Your task to perform on an android device: Go to calendar. Show me events next week Image 0: 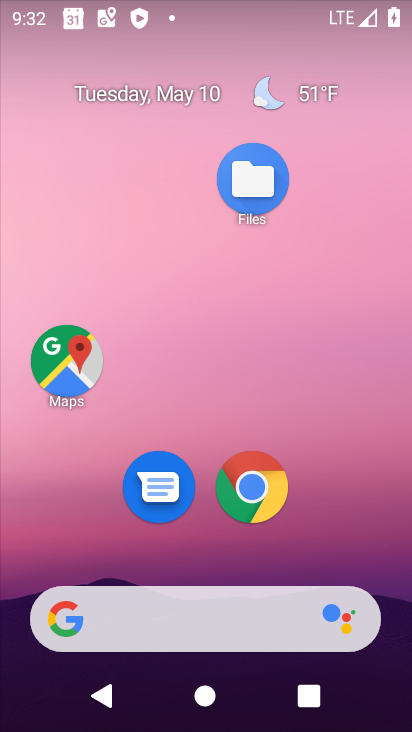
Step 0: drag from (186, 524) to (232, 24)
Your task to perform on an android device: Go to calendar. Show me events next week Image 1: 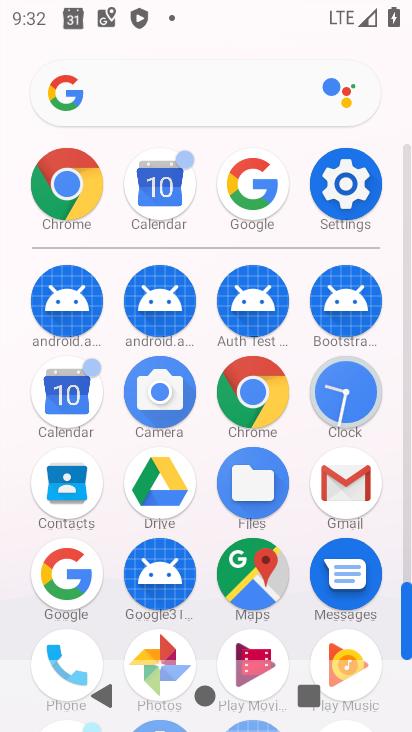
Step 1: click (64, 383)
Your task to perform on an android device: Go to calendar. Show me events next week Image 2: 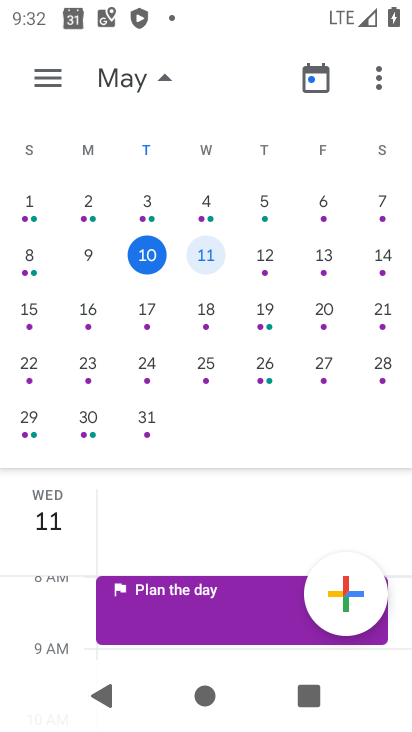
Step 2: click (321, 261)
Your task to perform on an android device: Go to calendar. Show me events next week Image 3: 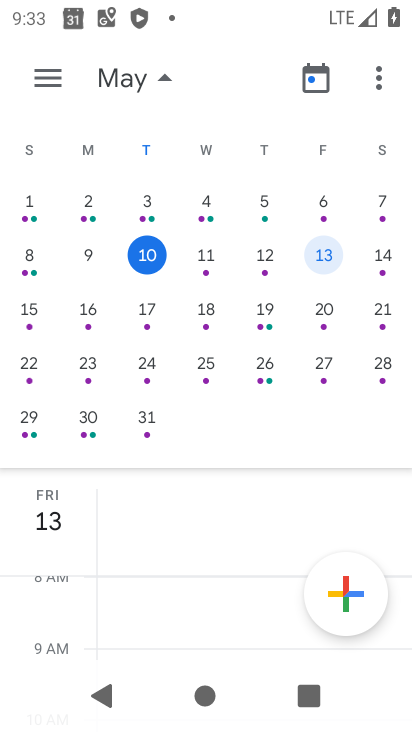
Step 3: task complete